Your task to perform on an android device: turn on the 12-hour format for clock Image 0: 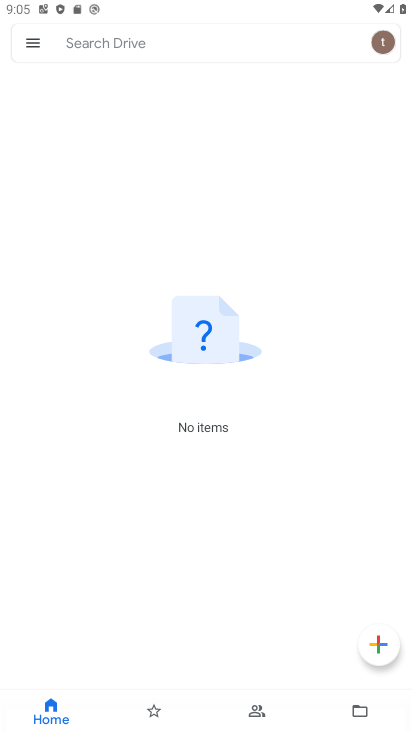
Step 0: press home button
Your task to perform on an android device: turn on the 12-hour format for clock Image 1: 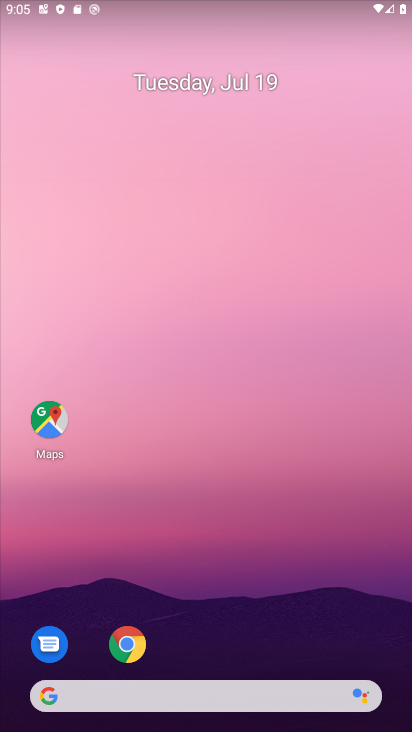
Step 1: drag from (225, 661) to (297, 5)
Your task to perform on an android device: turn on the 12-hour format for clock Image 2: 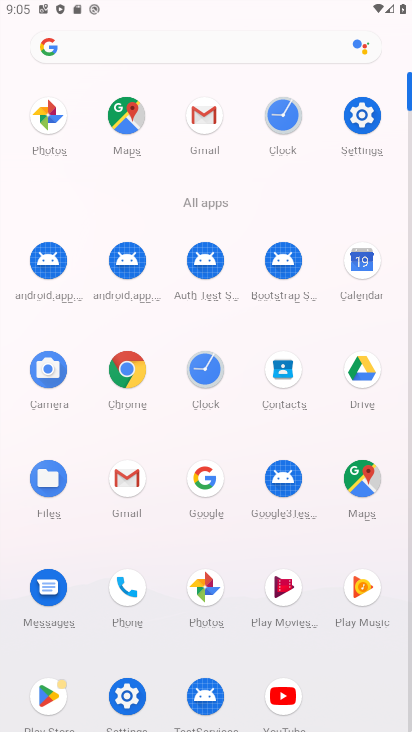
Step 2: click (206, 359)
Your task to perform on an android device: turn on the 12-hour format for clock Image 3: 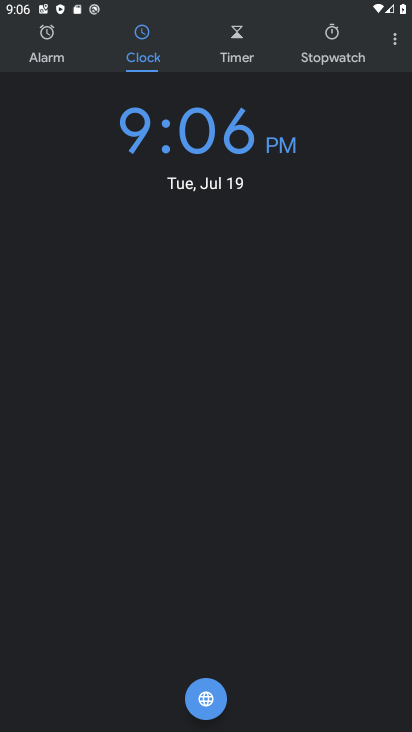
Step 3: click (391, 50)
Your task to perform on an android device: turn on the 12-hour format for clock Image 4: 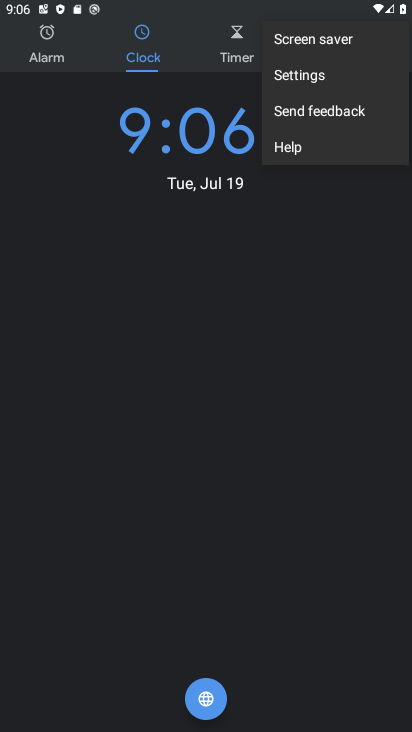
Step 4: click (330, 67)
Your task to perform on an android device: turn on the 12-hour format for clock Image 5: 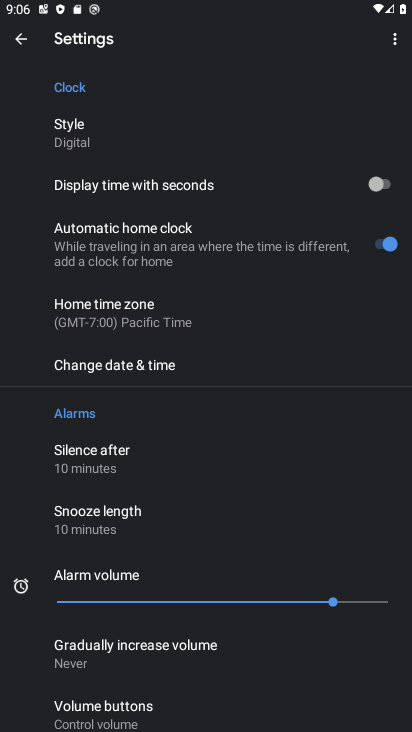
Step 5: click (58, 370)
Your task to perform on an android device: turn on the 12-hour format for clock Image 6: 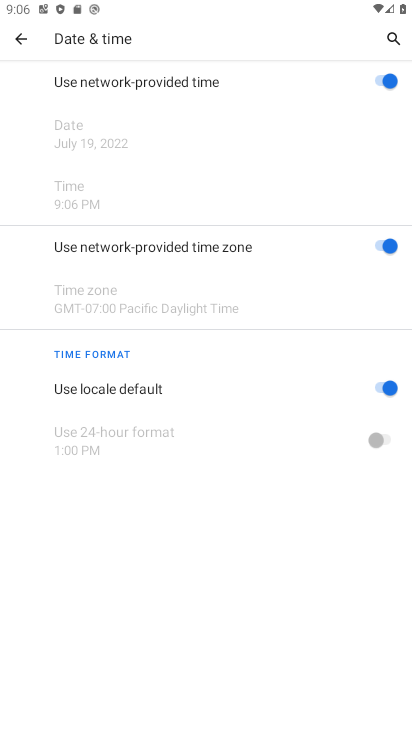
Step 6: task complete